Your task to perform on an android device: check the backup settings in the google photos Image 0: 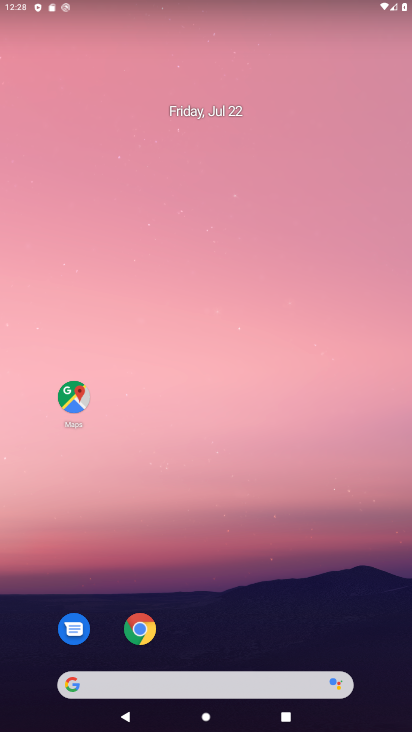
Step 0: press home button
Your task to perform on an android device: check the backup settings in the google photos Image 1: 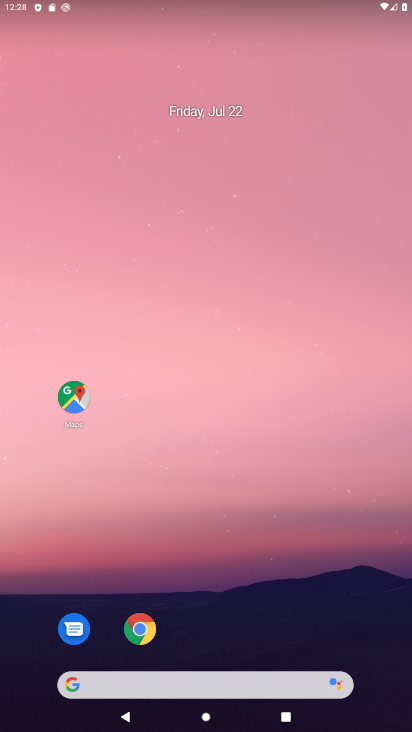
Step 1: drag from (209, 628) to (266, 81)
Your task to perform on an android device: check the backup settings in the google photos Image 2: 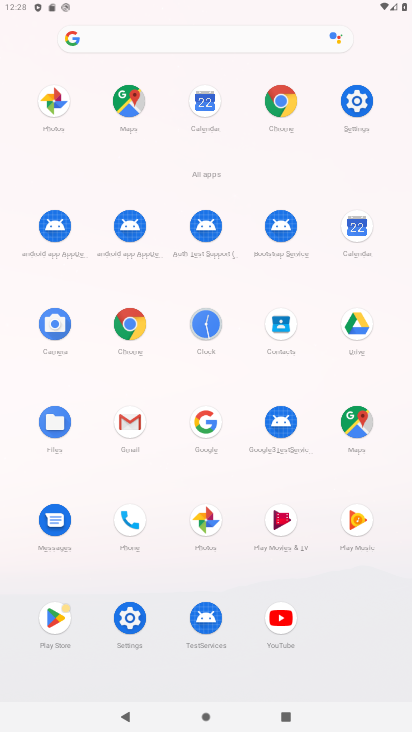
Step 2: click (207, 518)
Your task to perform on an android device: check the backup settings in the google photos Image 3: 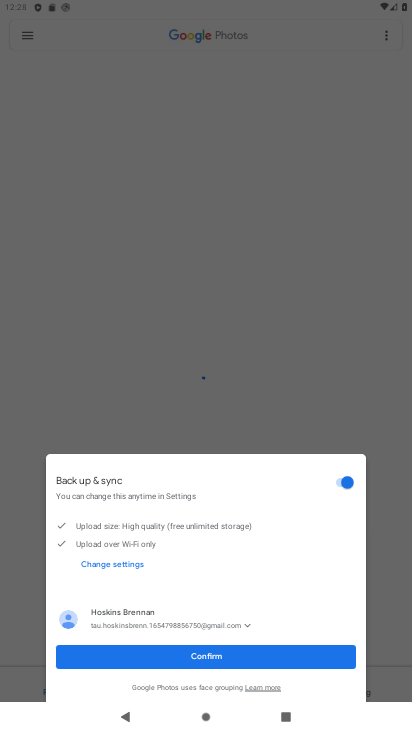
Step 3: click (196, 659)
Your task to perform on an android device: check the backup settings in the google photos Image 4: 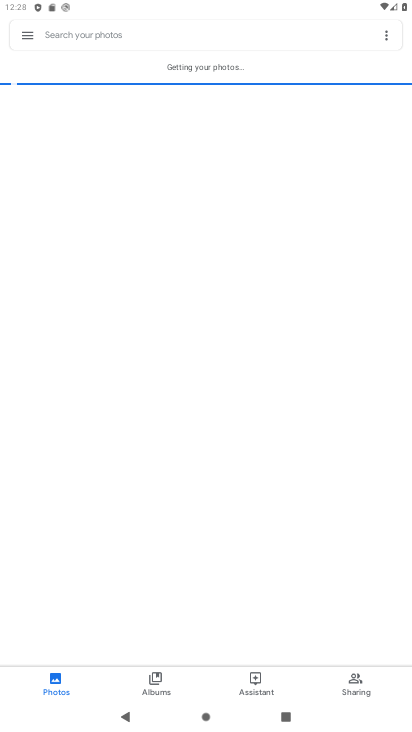
Step 4: click (28, 37)
Your task to perform on an android device: check the backup settings in the google photos Image 5: 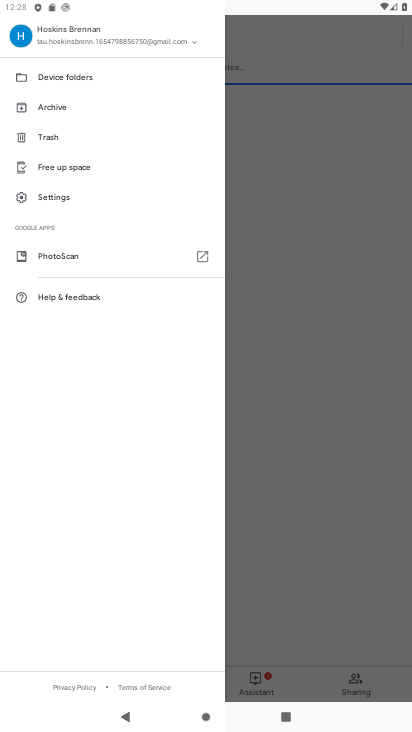
Step 5: click (67, 199)
Your task to perform on an android device: check the backup settings in the google photos Image 6: 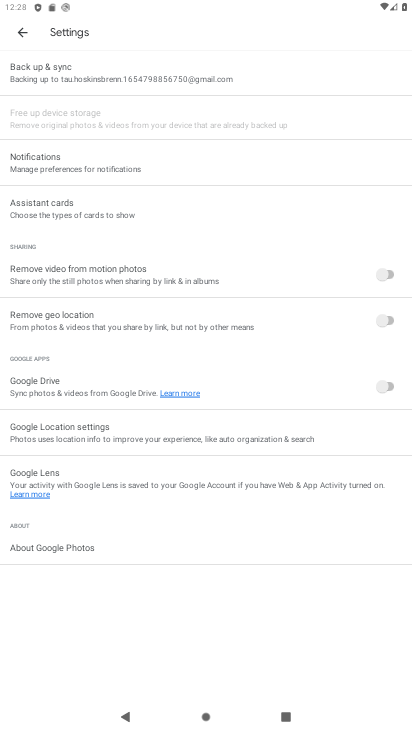
Step 6: click (72, 72)
Your task to perform on an android device: check the backup settings in the google photos Image 7: 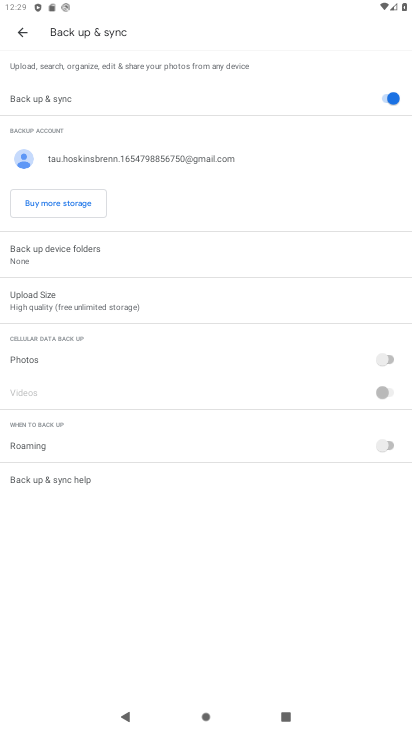
Step 7: task complete